Your task to perform on an android device: Open settings on Google Maps Image 0: 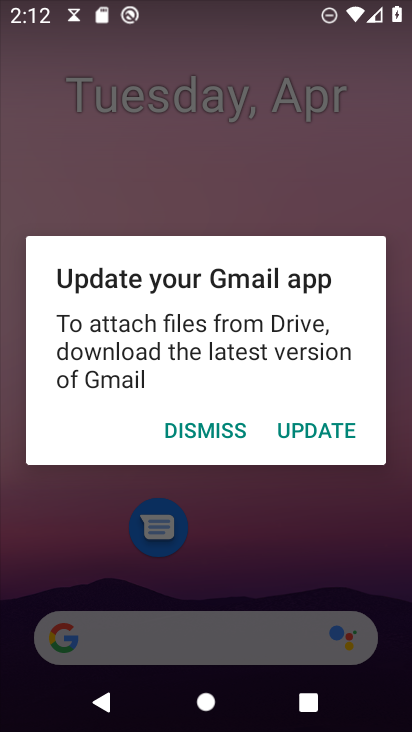
Step 0: press home button
Your task to perform on an android device: Open settings on Google Maps Image 1: 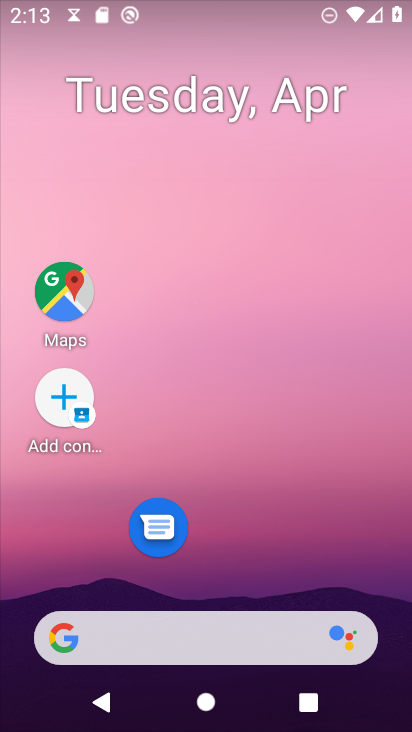
Step 1: click (67, 295)
Your task to perform on an android device: Open settings on Google Maps Image 2: 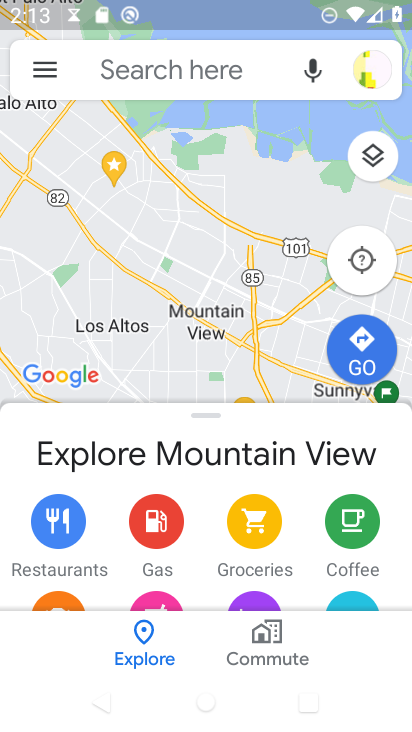
Step 2: click (43, 73)
Your task to perform on an android device: Open settings on Google Maps Image 3: 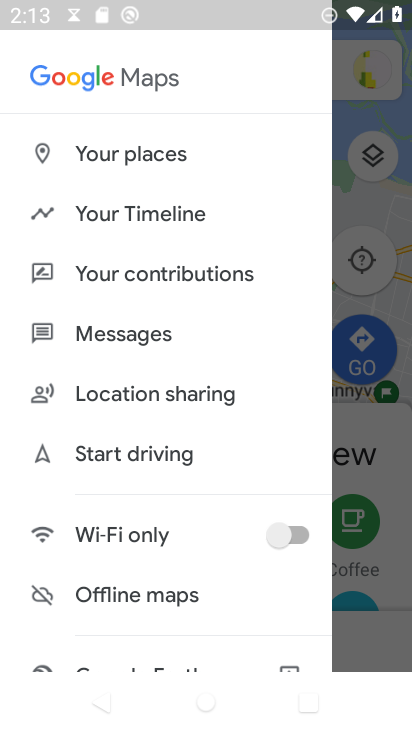
Step 3: drag from (134, 361) to (192, 234)
Your task to perform on an android device: Open settings on Google Maps Image 4: 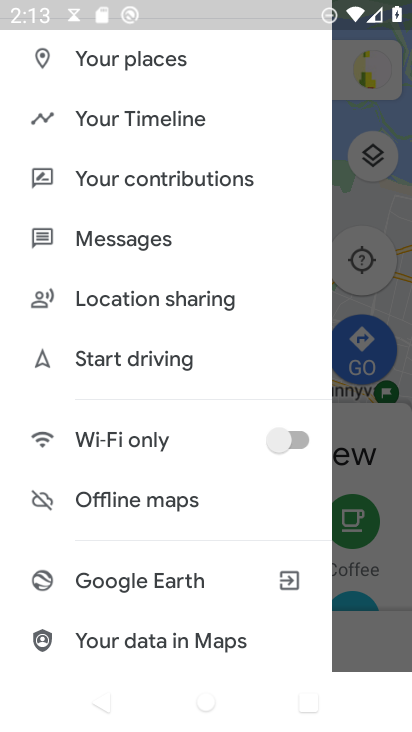
Step 4: drag from (131, 334) to (146, 250)
Your task to perform on an android device: Open settings on Google Maps Image 5: 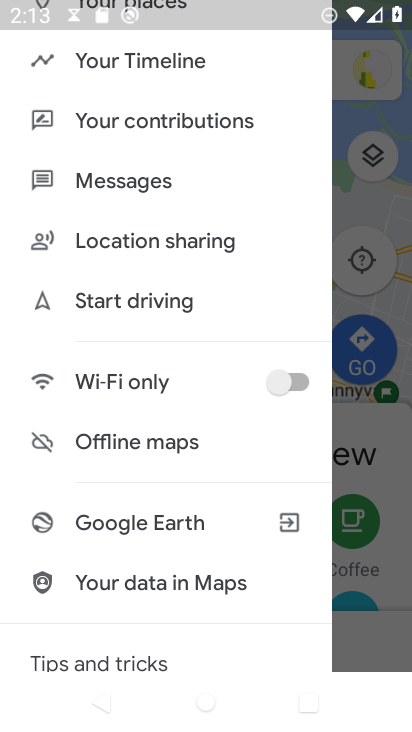
Step 5: drag from (106, 359) to (139, 242)
Your task to perform on an android device: Open settings on Google Maps Image 6: 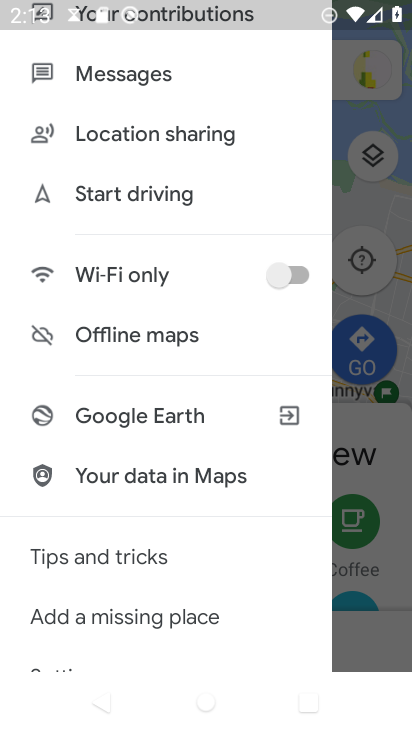
Step 6: drag from (106, 378) to (151, 284)
Your task to perform on an android device: Open settings on Google Maps Image 7: 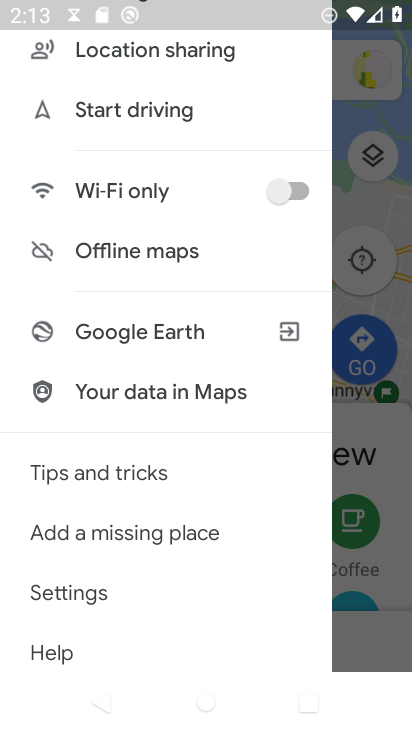
Step 7: drag from (109, 413) to (138, 286)
Your task to perform on an android device: Open settings on Google Maps Image 8: 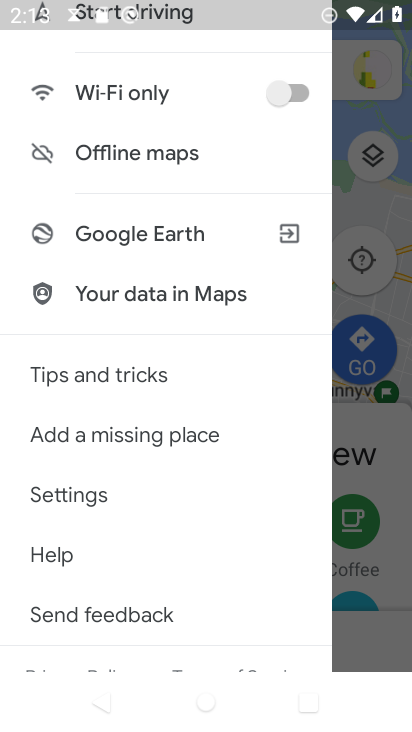
Step 8: click (85, 493)
Your task to perform on an android device: Open settings on Google Maps Image 9: 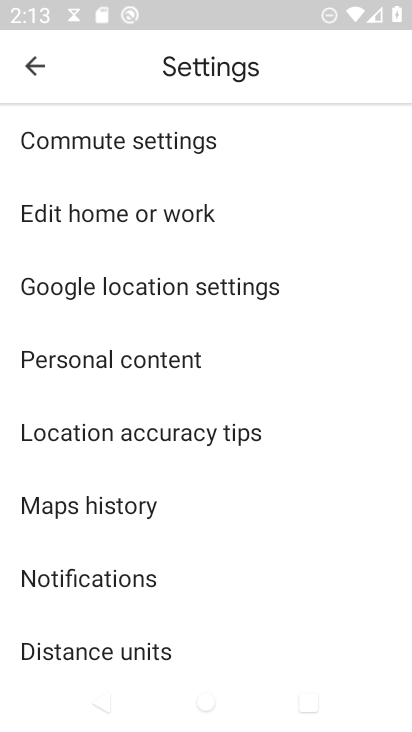
Step 9: task complete